Your task to perform on an android device: turn pop-ups on in chrome Image 0: 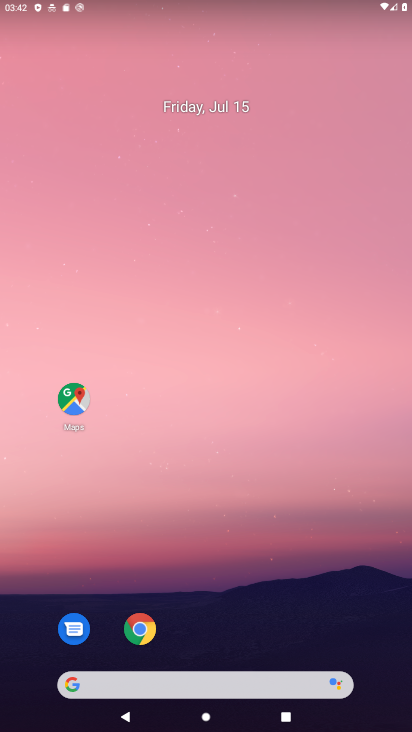
Step 0: drag from (256, 615) to (366, 6)
Your task to perform on an android device: turn pop-ups on in chrome Image 1: 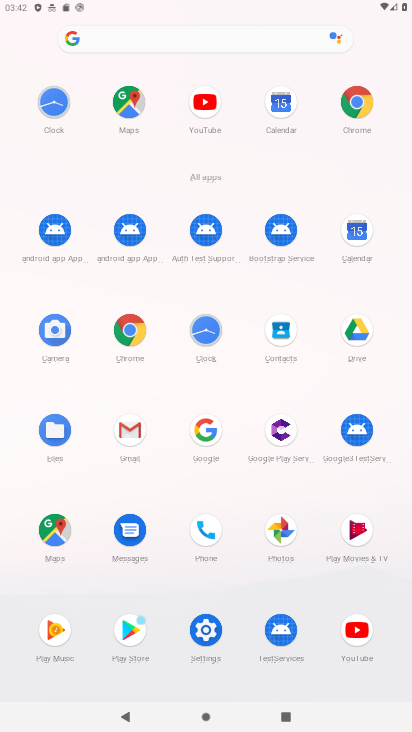
Step 1: click (141, 329)
Your task to perform on an android device: turn pop-ups on in chrome Image 2: 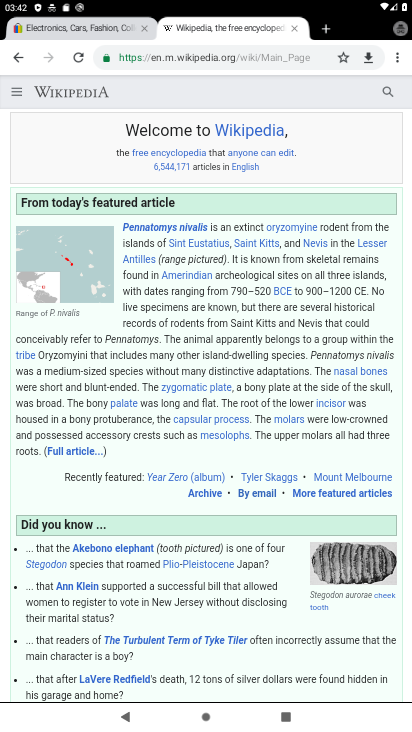
Step 2: click (399, 37)
Your task to perform on an android device: turn pop-ups on in chrome Image 3: 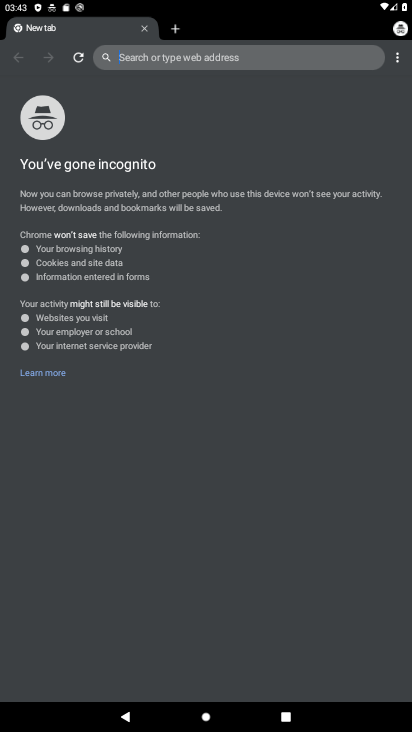
Step 3: drag from (399, 46) to (378, 183)
Your task to perform on an android device: turn pop-ups on in chrome Image 4: 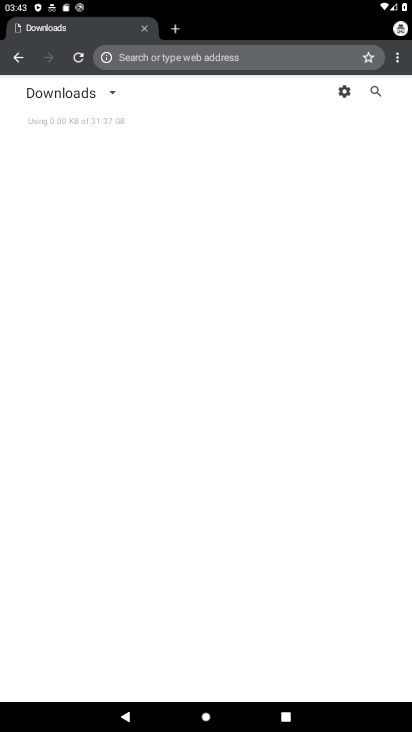
Step 4: press home button
Your task to perform on an android device: turn pop-ups on in chrome Image 5: 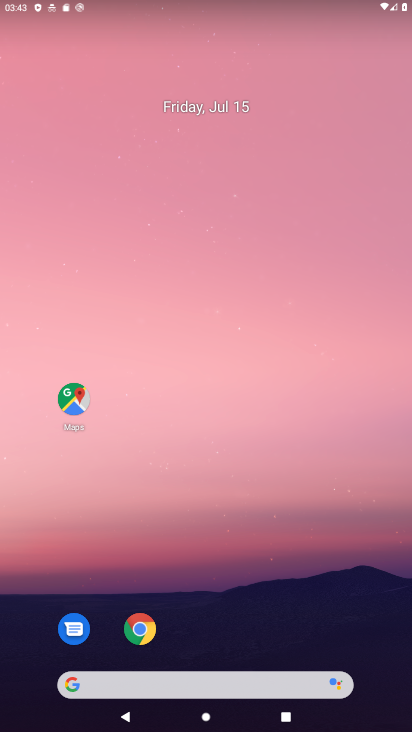
Step 5: drag from (319, 648) to (333, 119)
Your task to perform on an android device: turn pop-ups on in chrome Image 6: 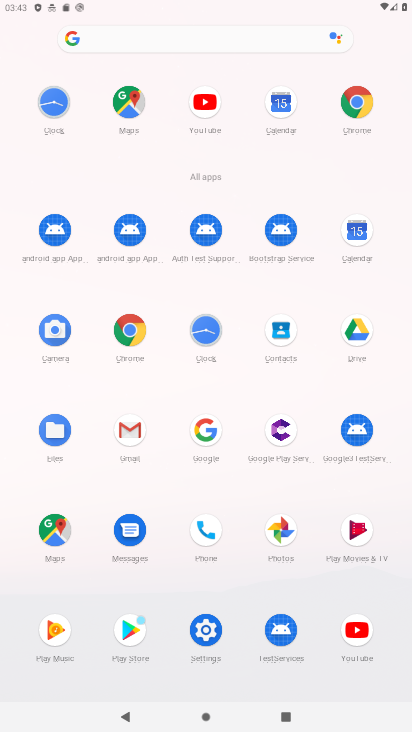
Step 6: click (352, 109)
Your task to perform on an android device: turn pop-ups on in chrome Image 7: 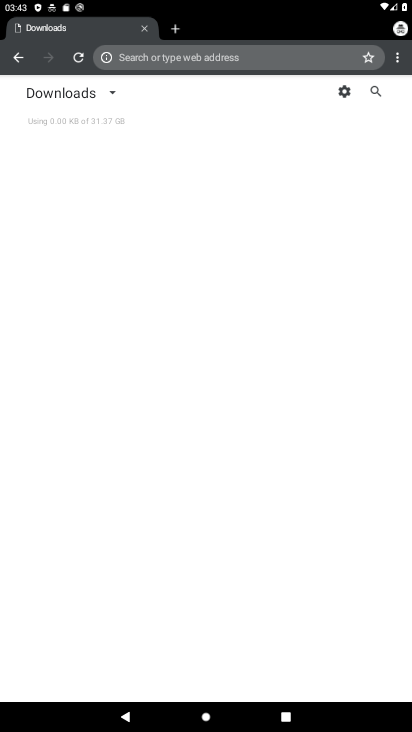
Step 7: drag from (398, 57) to (280, 233)
Your task to perform on an android device: turn pop-ups on in chrome Image 8: 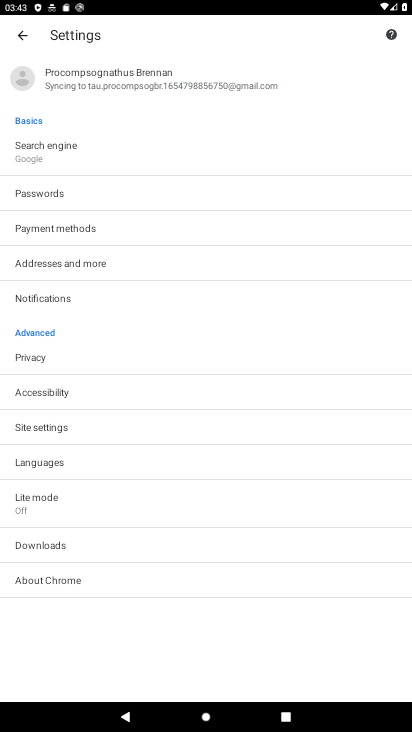
Step 8: click (24, 429)
Your task to perform on an android device: turn pop-ups on in chrome Image 9: 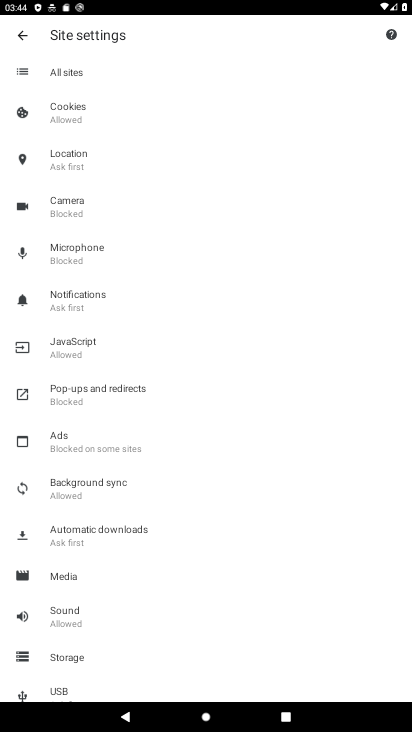
Step 9: click (134, 384)
Your task to perform on an android device: turn pop-ups on in chrome Image 10: 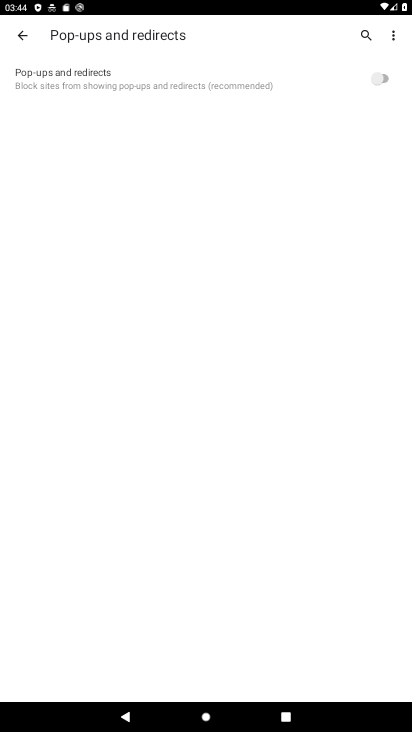
Step 10: click (310, 87)
Your task to perform on an android device: turn pop-ups on in chrome Image 11: 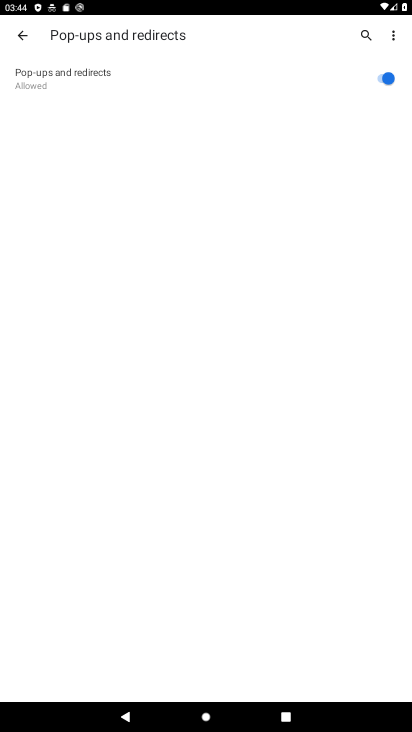
Step 11: task complete